Your task to perform on an android device: Open Google Chrome and open the bookmarks view Image 0: 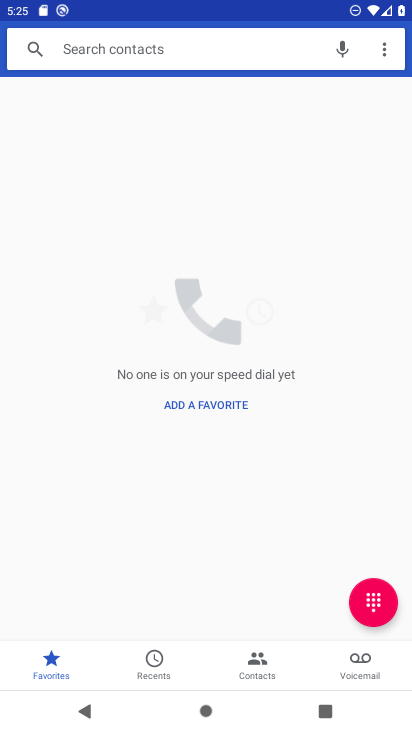
Step 0: press home button
Your task to perform on an android device: Open Google Chrome and open the bookmarks view Image 1: 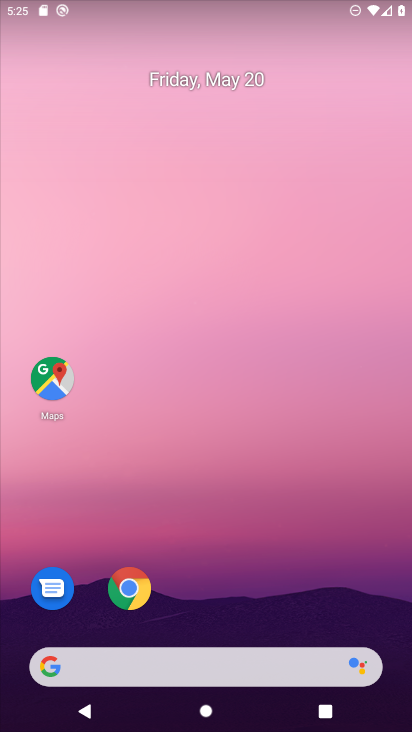
Step 1: click (136, 598)
Your task to perform on an android device: Open Google Chrome and open the bookmarks view Image 2: 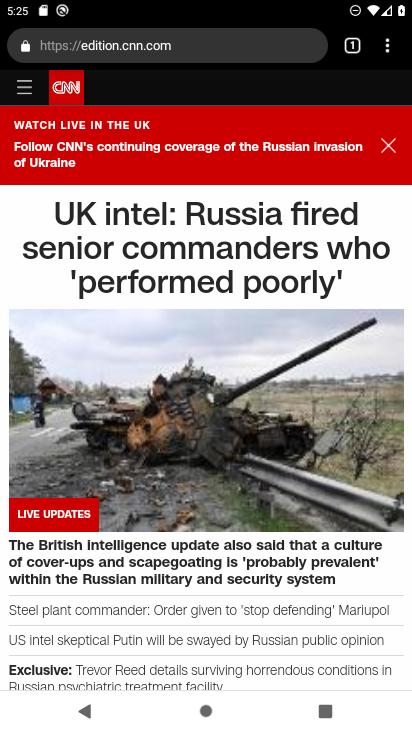
Step 2: click (381, 52)
Your task to perform on an android device: Open Google Chrome and open the bookmarks view Image 3: 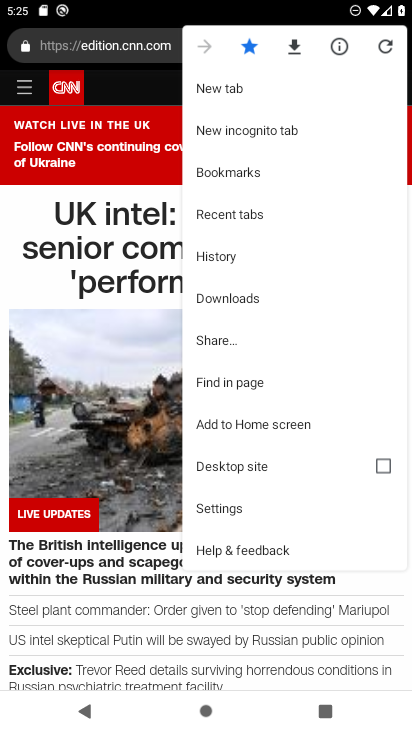
Step 3: click (249, 179)
Your task to perform on an android device: Open Google Chrome and open the bookmarks view Image 4: 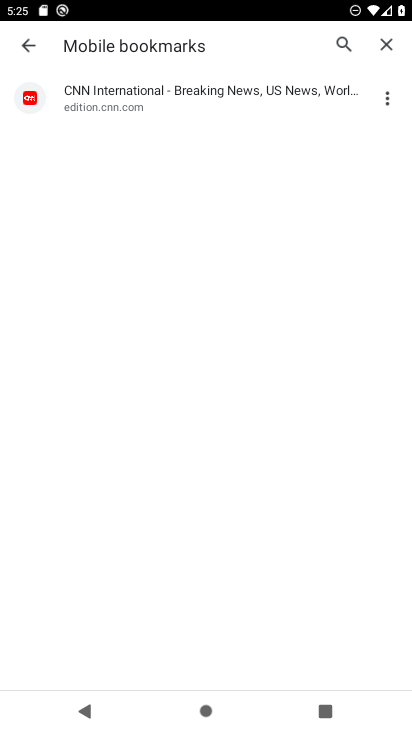
Step 4: task complete